Your task to perform on an android device: manage bookmarks in the chrome app Image 0: 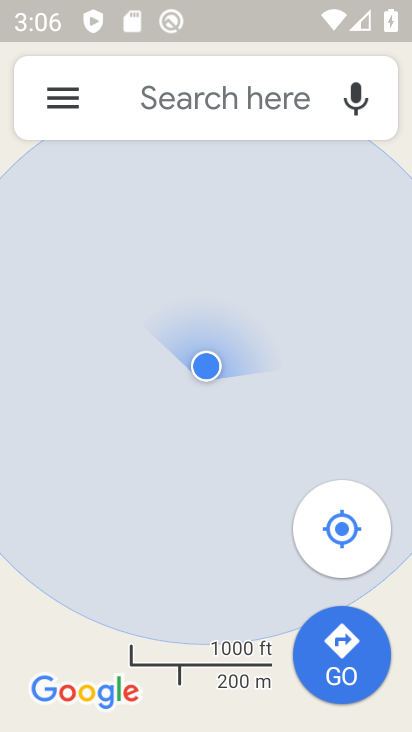
Step 0: press home button
Your task to perform on an android device: manage bookmarks in the chrome app Image 1: 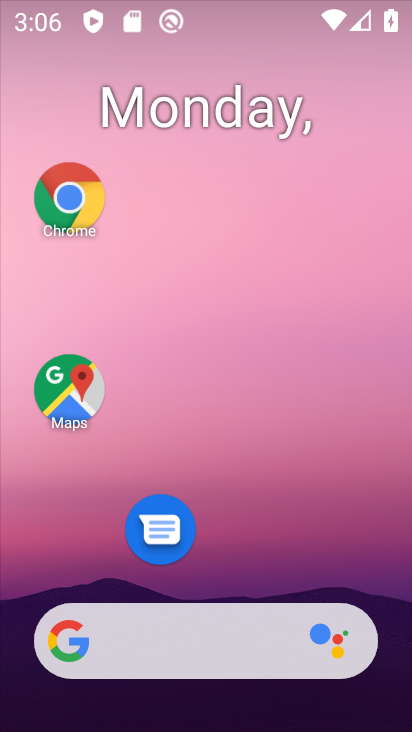
Step 1: drag from (217, 657) to (287, 18)
Your task to perform on an android device: manage bookmarks in the chrome app Image 2: 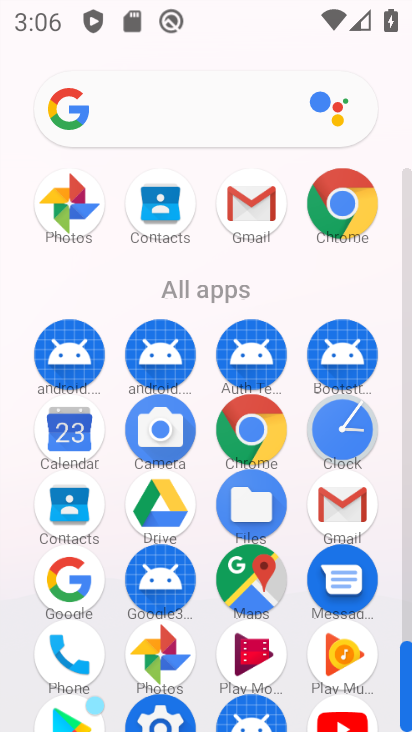
Step 2: click (363, 221)
Your task to perform on an android device: manage bookmarks in the chrome app Image 3: 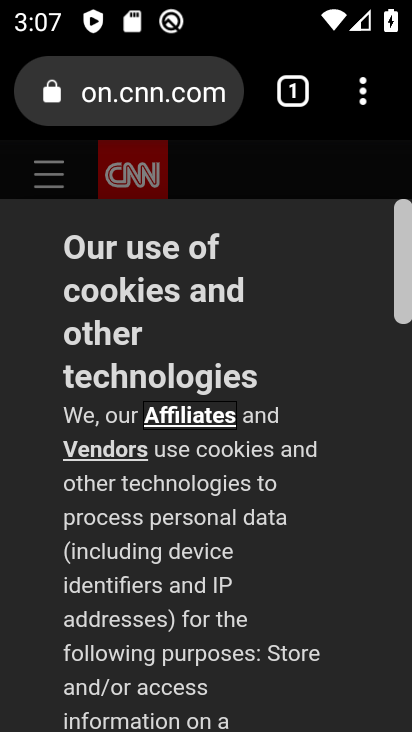
Step 3: click (362, 99)
Your task to perform on an android device: manage bookmarks in the chrome app Image 4: 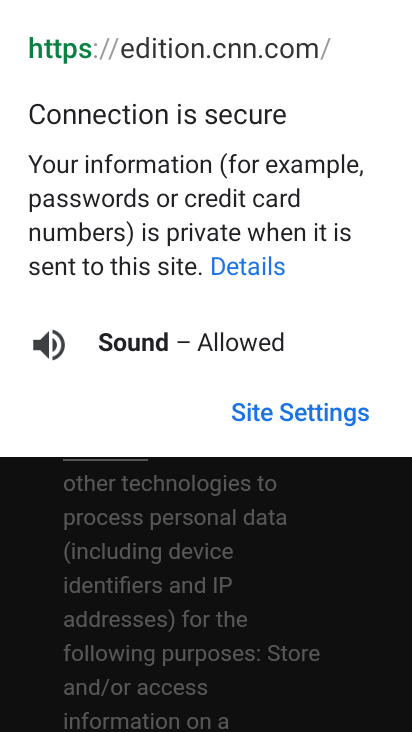
Step 4: click (243, 509)
Your task to perform on an android device: manage bookmarks in the chrome app Image 5: 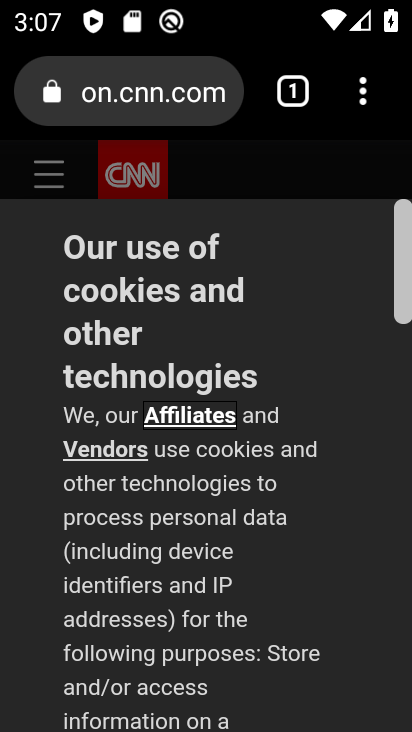
Step 5: click (366, 90)
Your task to perform on an android device: manage bookmarks in the chrome app Image 6: 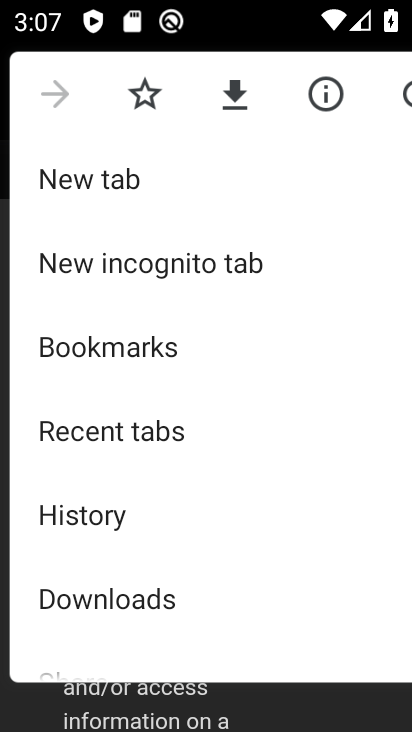
Step 6: drag from (182, 547) to (163, 266)
Your task to perform on an android device: manage bookmarks in the chrome app Image 7: 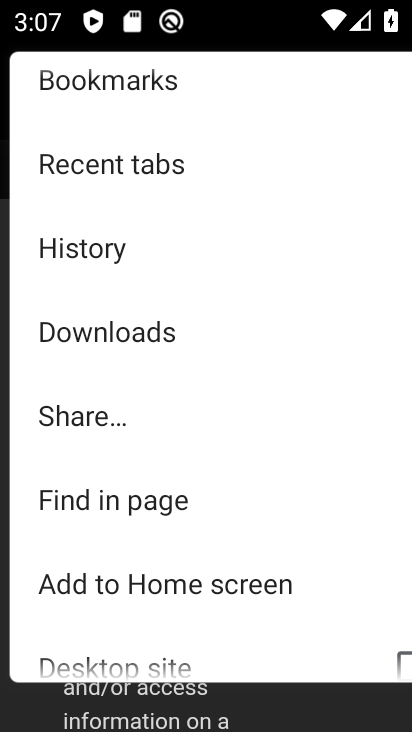
Step 7: click (134, 99)
Your task to perform on an android device: manage bookmarks in the chrome app Image 8: 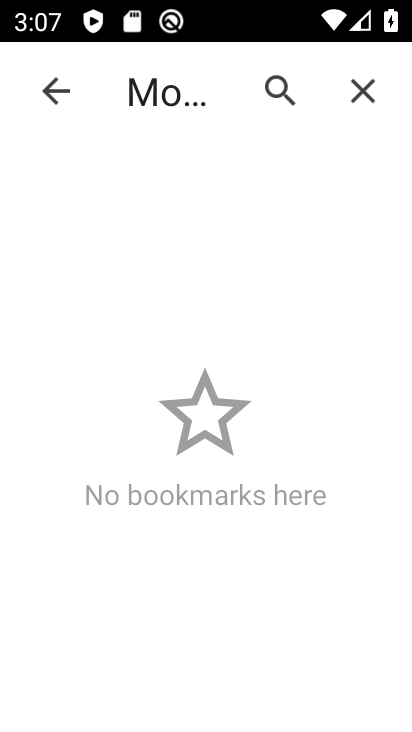
Step 8: task complete